Your task to perform on an android device: turn pop-ups off in chrome Image 0: 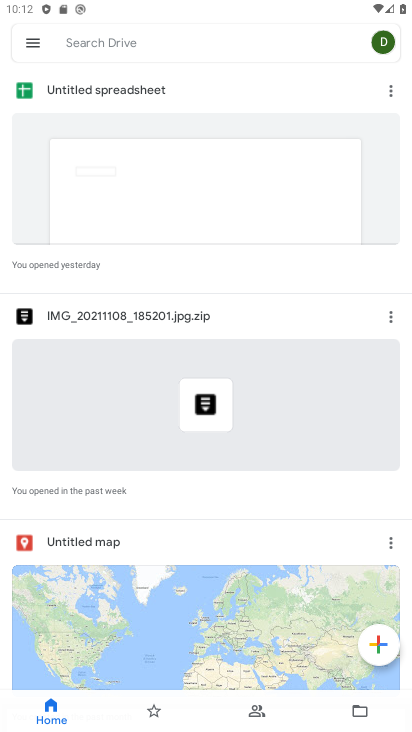
Step 0: press home button
Your task to perform on an android device: turn pop-ups off in chrome Image 1: 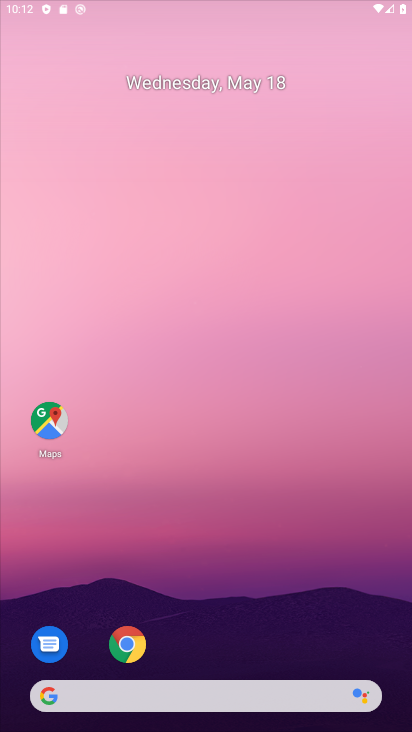
Step 1: drag from (381, 624) to (293, 14)
Your task to perform on an android device: turn pop-ups off in chrome Image 2: 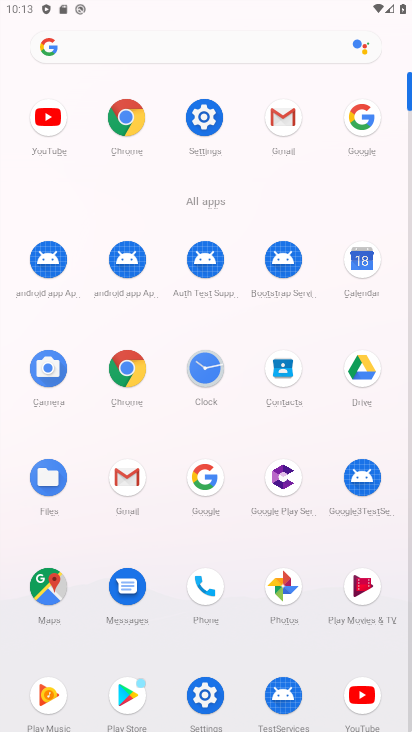
Step 2: click (131, 366)
Your task to perform on an android device: turn pop-ups off in chrome Image 3: 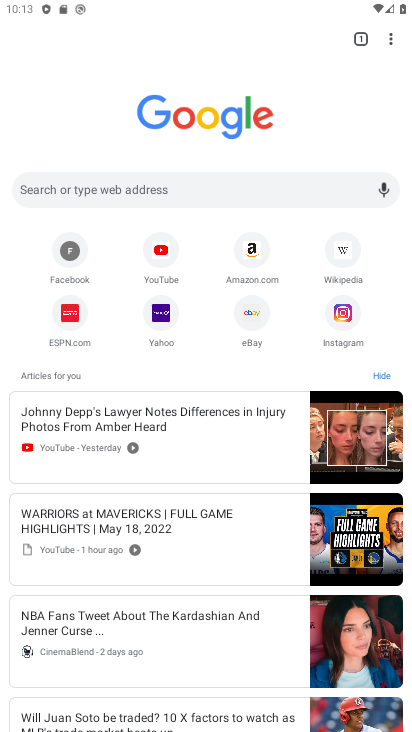
Step 3: click (390, 38)
Your task to perform on an android device: turn pop-ups off in chrome Image 4: 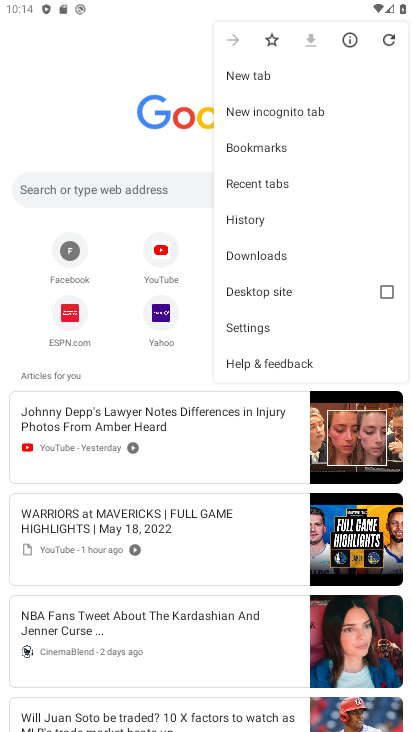
Step 4: click (303, 312)
Your task to perform on an android device: turn pop-ups off in chrome Image 5: 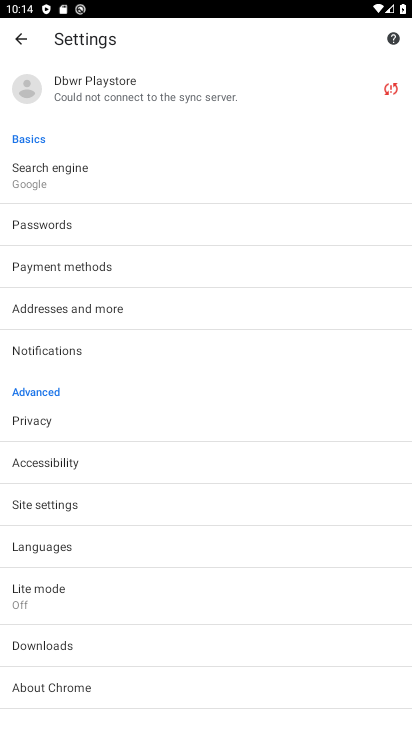
Step 5: click (129, 503)
Your task to perform on an android device: turn pop-ups off in chrome Image 6: 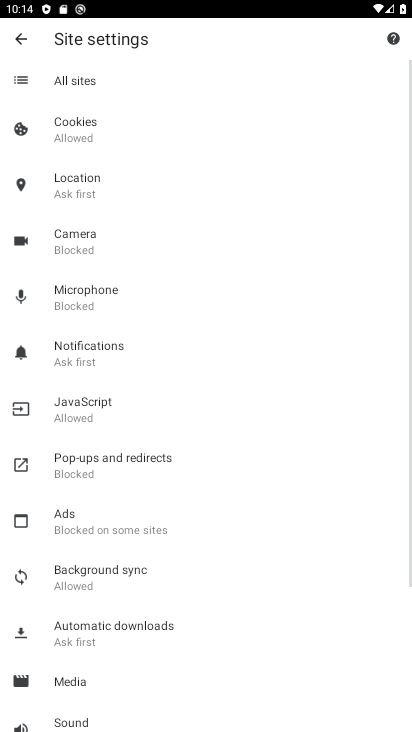
Step 6: click (142, 454)
Your task to perform on an android device: turn pop-ups off in chrome Image 7: 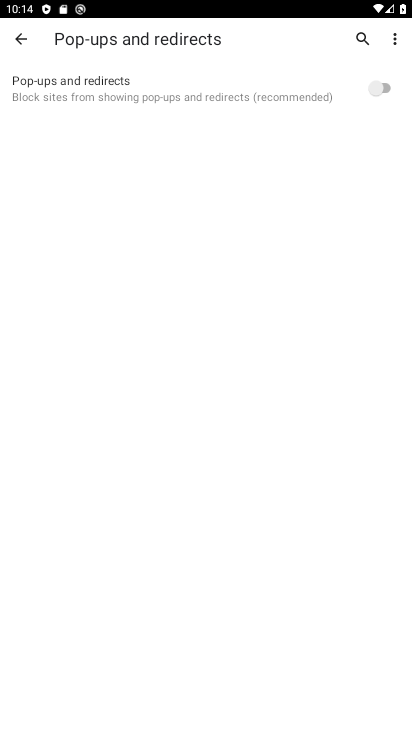
Step 7: task complete